Your task to perform on an android device: Open accessibility settings Image 0: 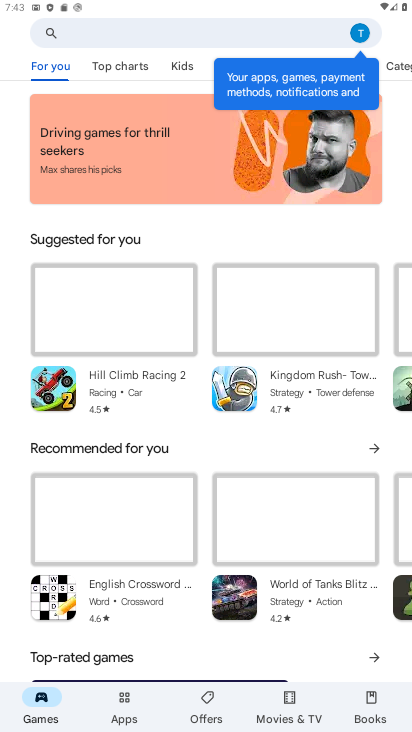
Step 0: press home button
Your task to perform on an android device: Open accessibility settings Image 1: 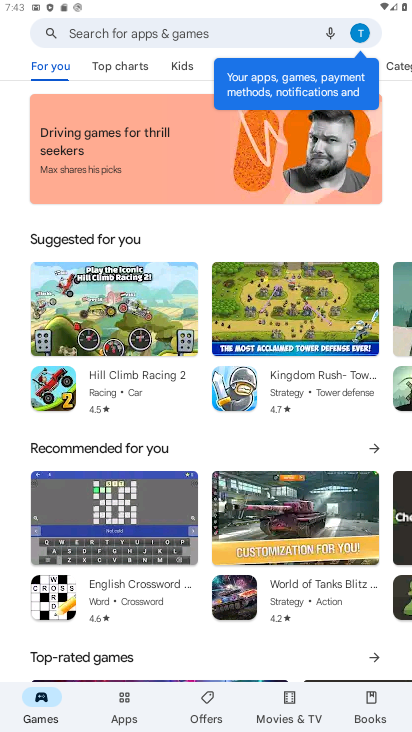
Step 1: press home button
Your task to perform on an android device: Open accessibility settings Image 2: 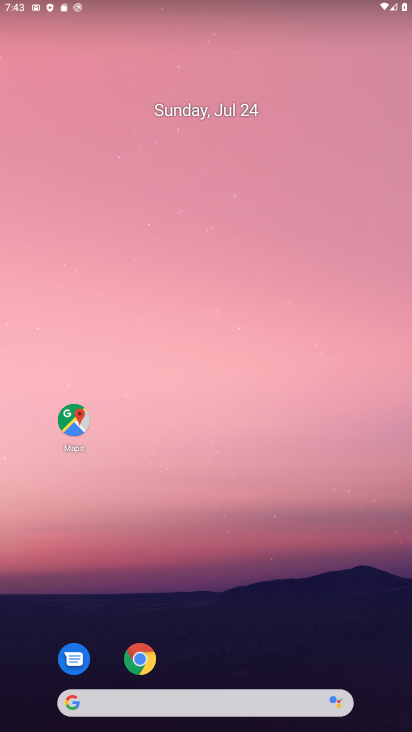
Step 2: drag from (111, 517) to (61, 195)
Your task to perform on an android device: Open accessibility settings Image 3: 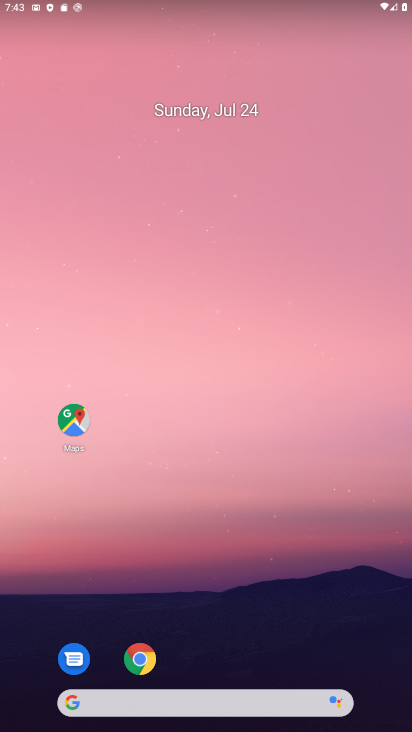
Step 3: drag from (287, 210) to (291, 161)
Your task to perform on an android device: Open accessibility settings Image 4: 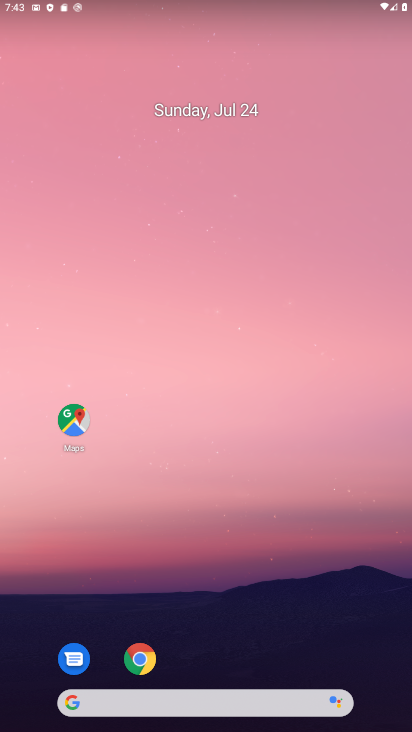
Step 4: drag from (230, 660) to (186, 197)
Your task to perform on an android device: Open accessibility settings Image 5: 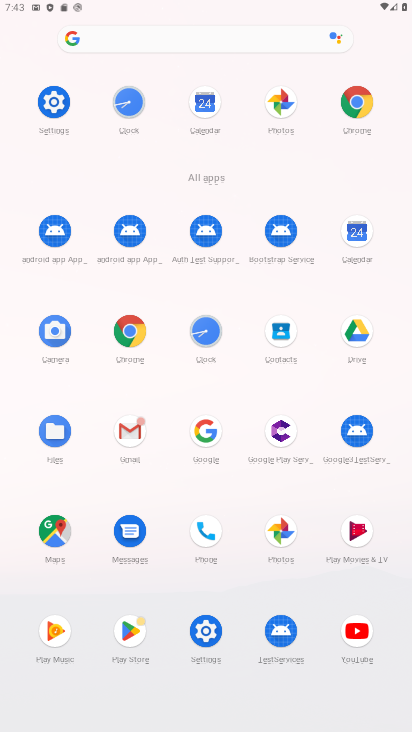
Step 5: click (209, 636)
Your task to perform on an android device: Open accessibility settings Image 6: 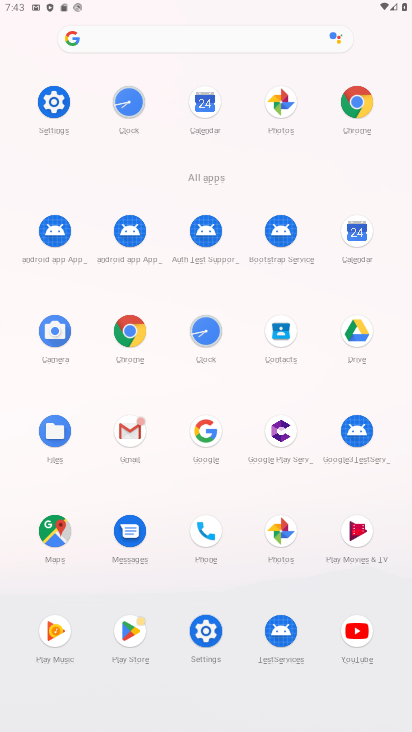
Step 6: click (209, 636)
Your task to perform on an android device: Open accessibility settings Image 7: 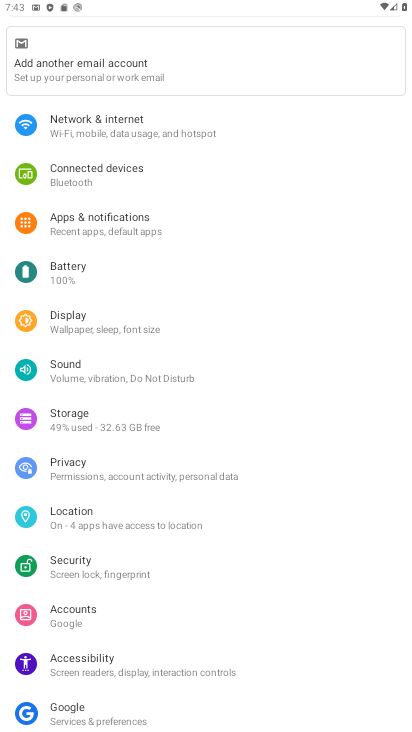
Step 7: click (73, 650)
Your task to perform on an android device: Open accessibility settings Image 8: 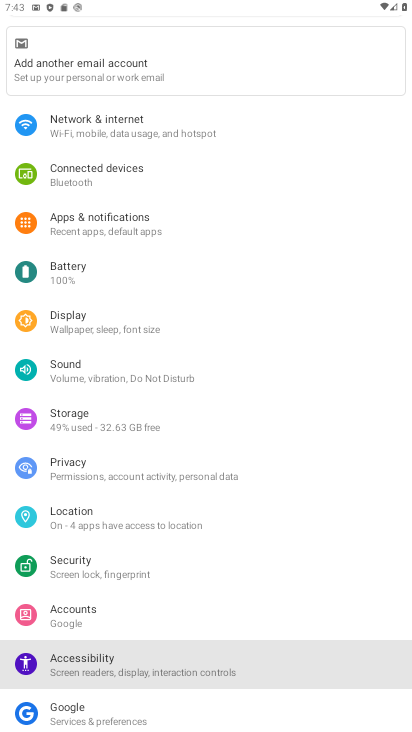
Step 8: click (73, 650)
Your task to perform on an android device: Open accessibility settings Image 9: 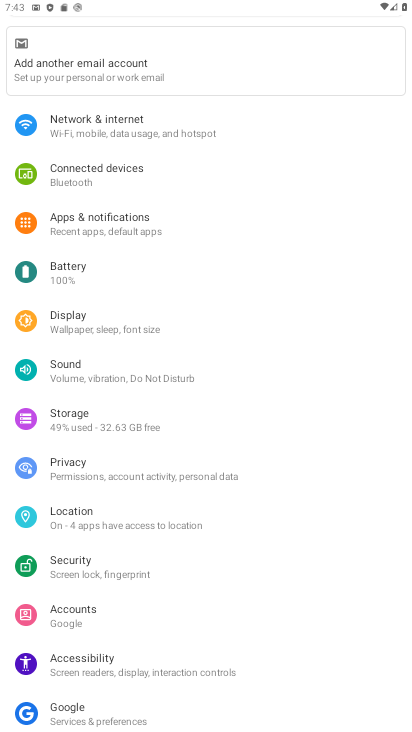
Step 9: click (71, 651)
Your task to perform on an android device: Open accessibility settings Image 10: 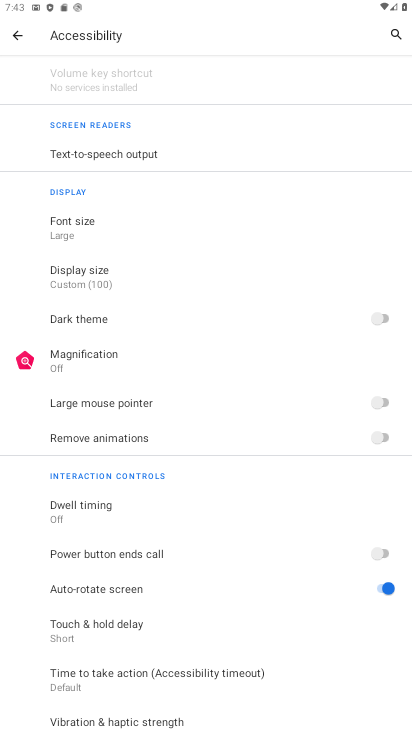
Step 10: task complete